Your task to perform on an android device: open the mobile data screen to see how much data has been used Image 0: 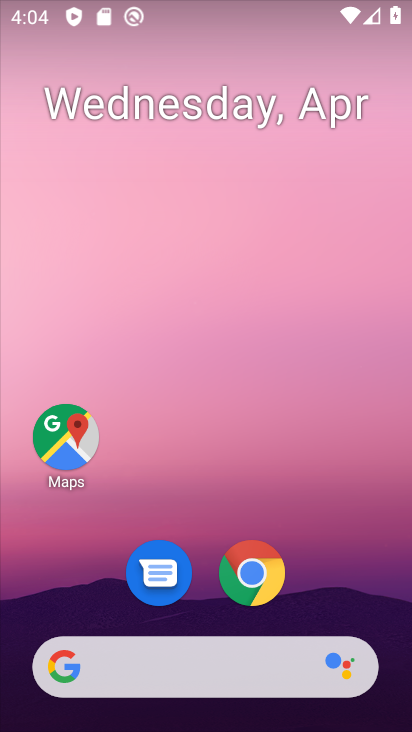
Step 0: drag from (377, 156) to (373, 43)
Your task to perform on an android device: open the mobile data screen to see how much data has been used Image 1: 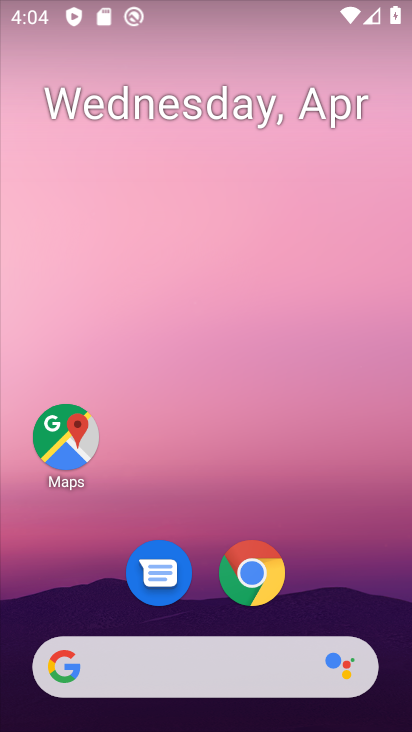
Step 1: drag from (371, 567) to (363, 5)
Your task to perform on an android device: open the mobile data screen to see how much data has been used Image 2: 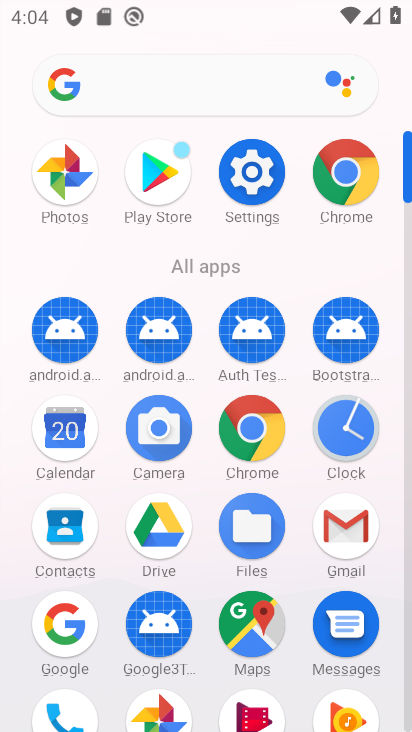
Step 2: click (256, 175)
Your task to perform on an android device: open the mobile data screen to see how much data has been used Image 3: 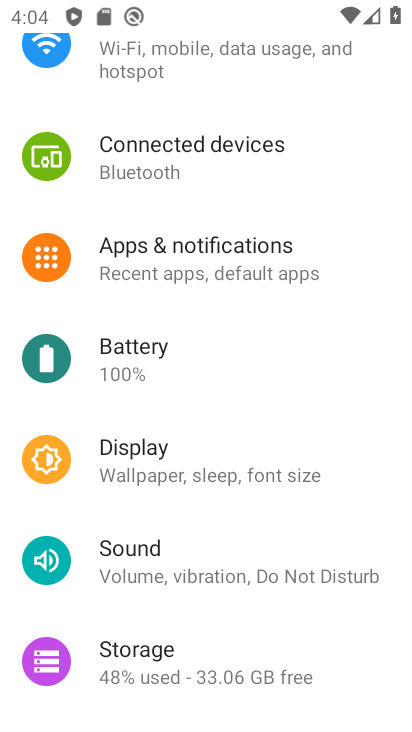
Step 3: drag from (383, 162) to (387, 380)
Your task to perform on an android device: open the mobile data screen to see how much data has been used Image 4: 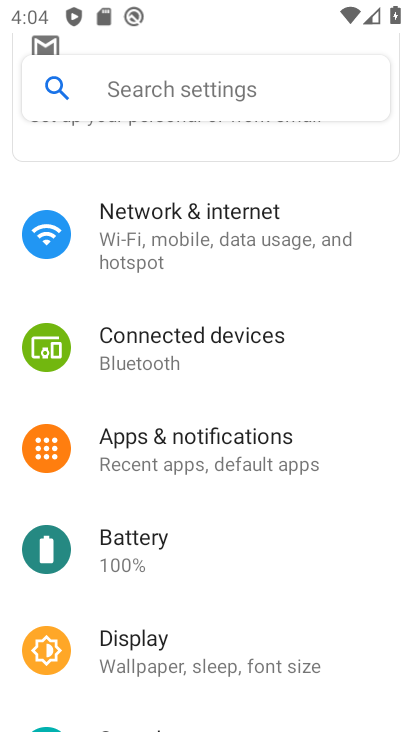
Step 4: click (211, 233)
Your task to perform on an android device: open the mobile data screen to see how much data has been used Image 5: 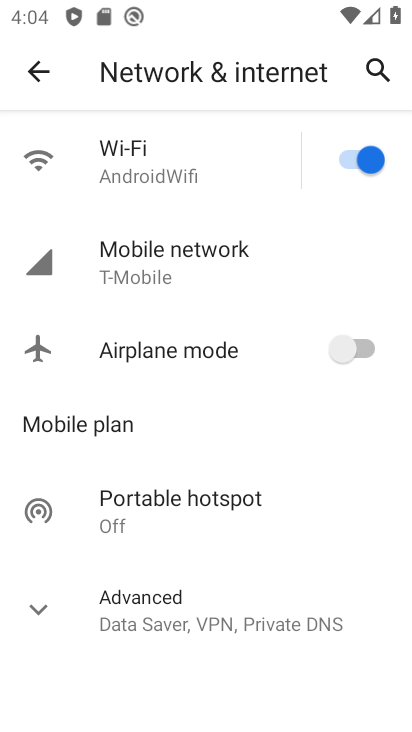
Step 5: click (181, 267)
Your task to perform on an android device: open the mobile data screen to see how much data has been used Image 6: 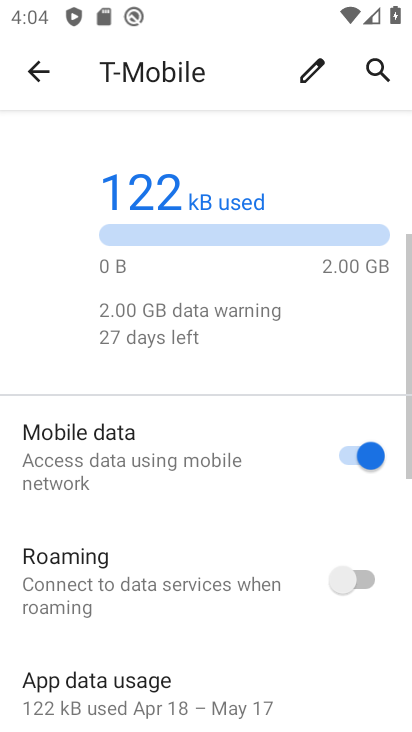
Step 6: drag from (166, 460) to (165, 220)
Your task to perform on an android device: open the mobile data screen to see how much data has been used Image 7: 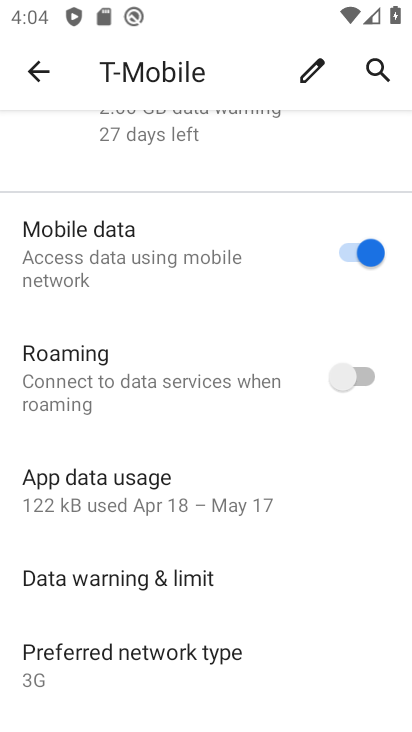
Step 7: click (64, 479)
Your task to perform on an android device: open the mobile data screen to see how much data has been used Image 8: 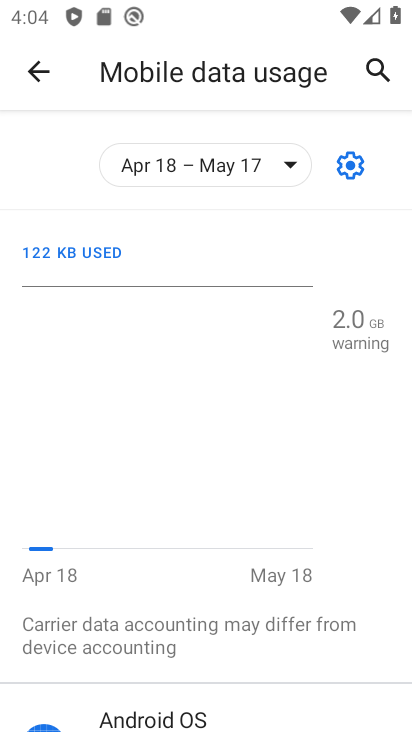
Step 8: task complete